Your task to perform on an android device: Show me the alarms in the clock app Image 0: 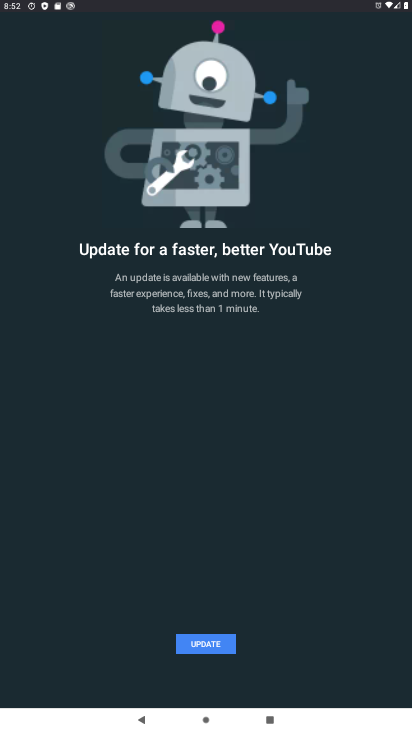
Step 0: press home button
Your task to perform on an android device: Show me the alarms in the clock app Image 1: 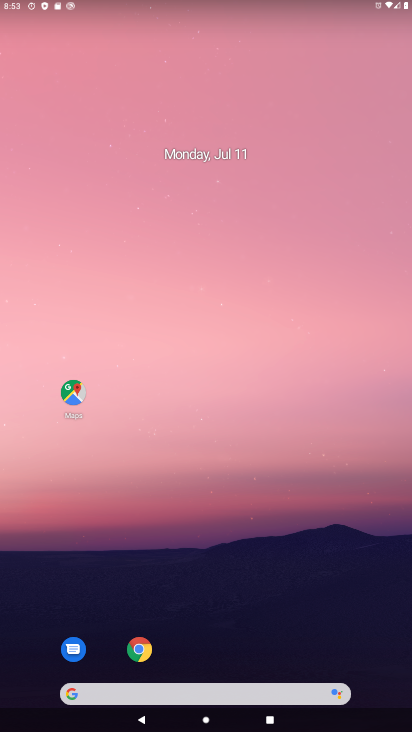
Step 1: drag from (186, 695) to (167, 157)
Your task to perform on an android device: Show me the alarms in the clock app Image 2: 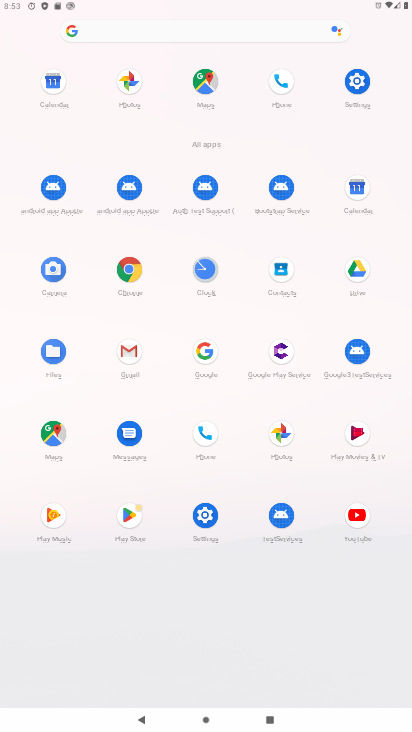
Step 2: click (205, 270)
Your task to perform on an android device: Show me the alarms in the clock app Image 3: 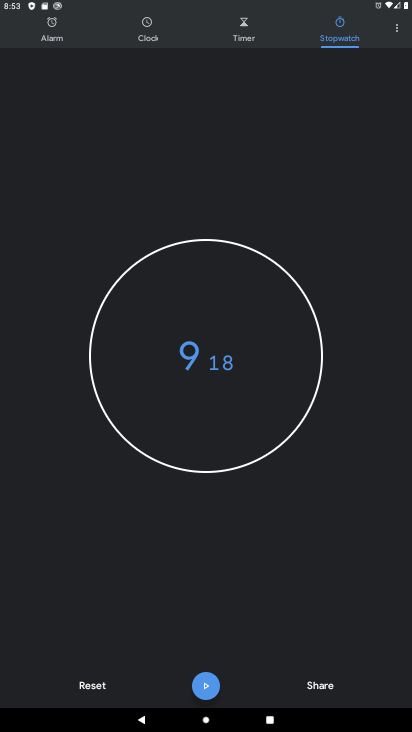
Step 3: click (53, 30)
Your task to perform on an android device: Show me the alarms in the clock app Image 4: 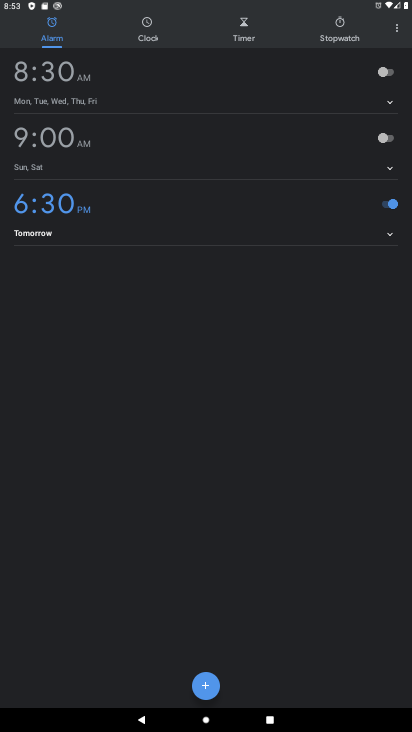
Step 4: click (393, 239)
Your task to perform on an android device: Show me the alarms in the clock app Image 5: 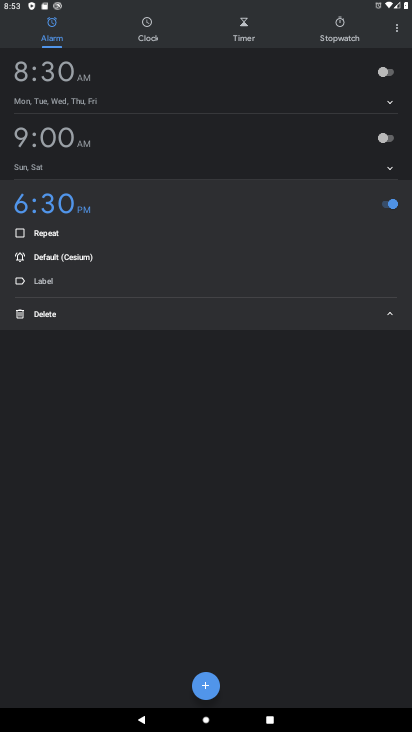
Step 5: click (55, 209)
Your task to perform on an android device: Show me the alarms in the clock app Image 6: 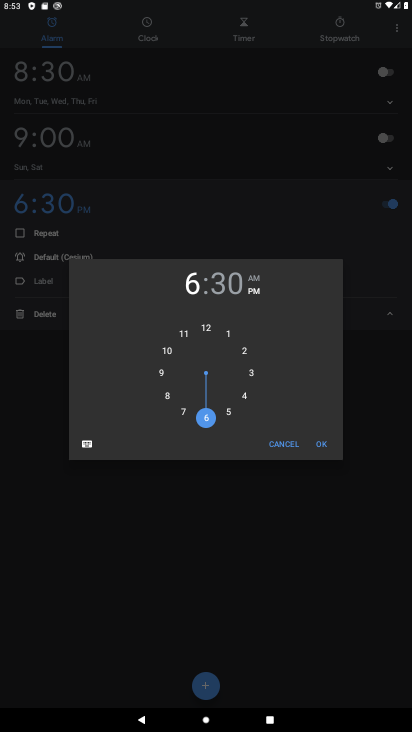
Step 6: click (164, 373)
Your task to perform on an android device: Show me the alarms in the clock app Image 7: 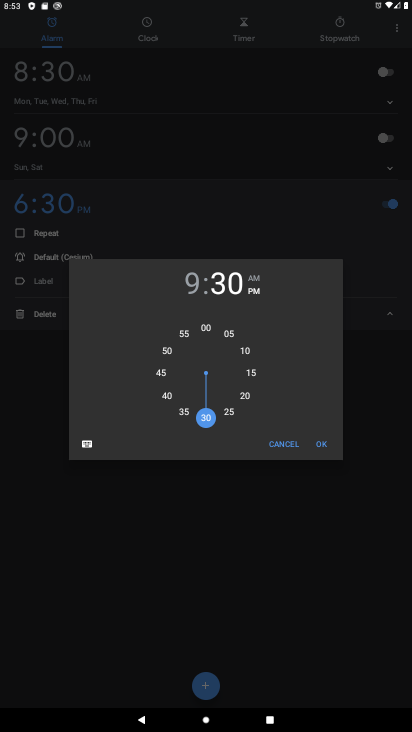
Step 7: click (164, 373)
Your task to perform on an android device: Show me the alarms in the clock app Image 8: 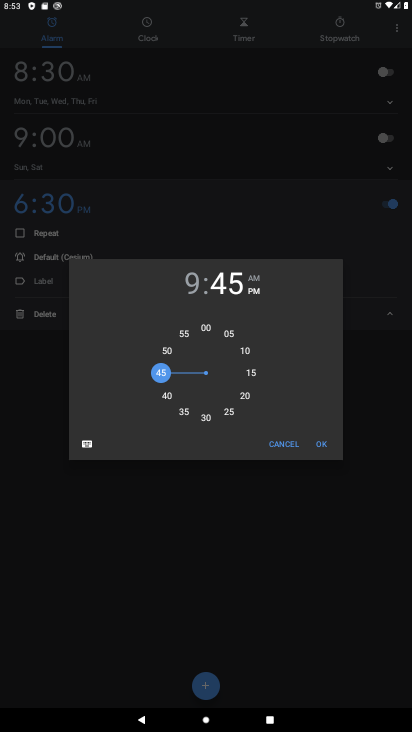
Step 8: click (322, 441)
Your task to perform on an android device: Show me the alarms in the clock app Image 9: 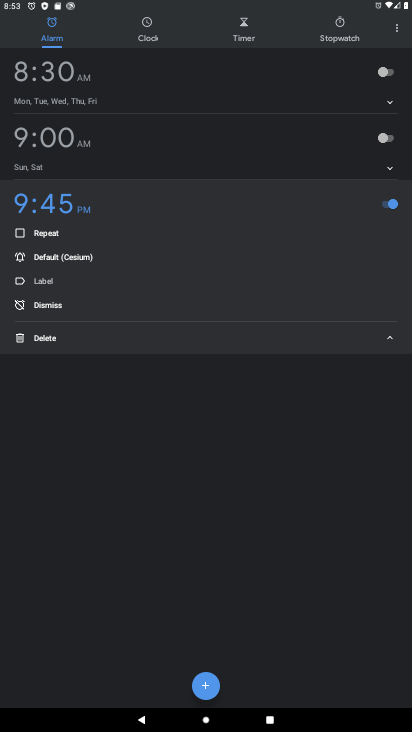
Step 9: click (390, 342)
Your task to perform on an android device: Show me the alarms in the clock app Image 10: 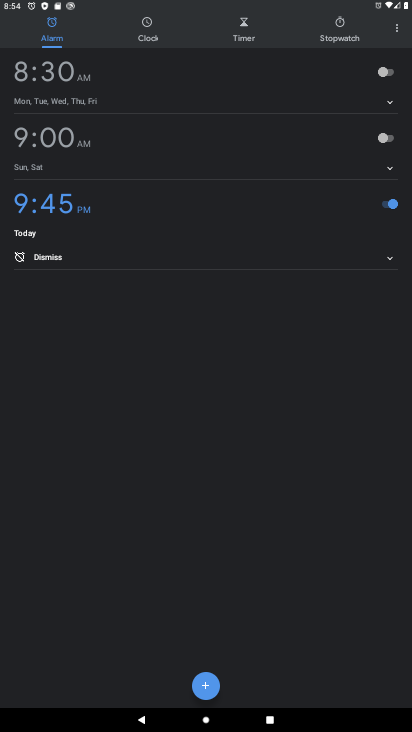
Step 10: task complete